Your task to perform on an android device: change the clock display to digital Image 0: 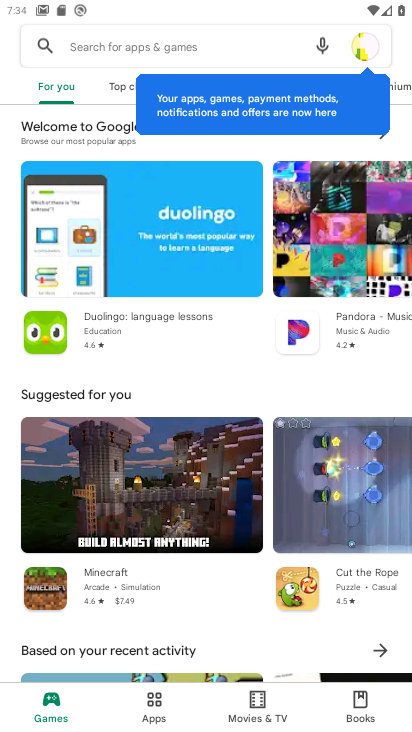
Step 0: drag from (259, 423) to (351, 116)
Your task to perform on an android device: change the clock display to digital Image 1: 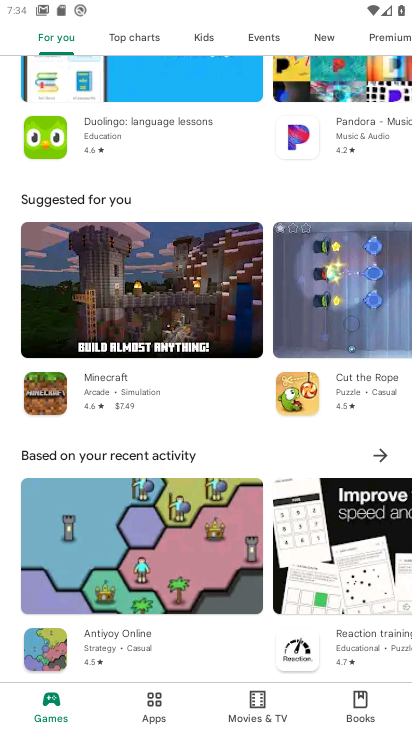
Step 1: drag from (240, 394) to (248, 276)
Your task to perform on an android device: change the clock display to digital Image 2: 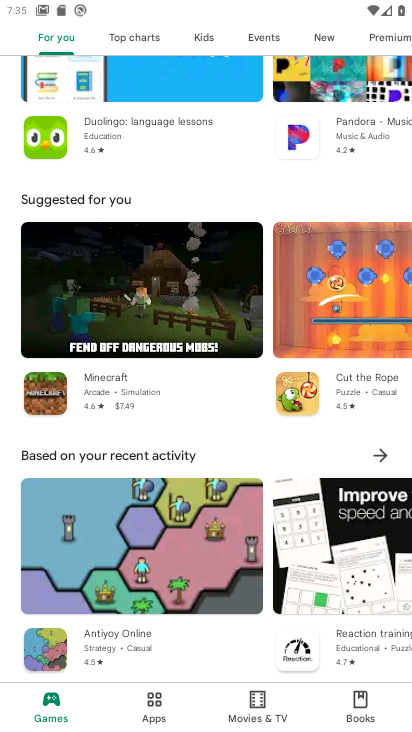
Step 2: drag from (252, 626) to (238, 265)
Your task to perform on an android device: change the clock display to digital Image 3: 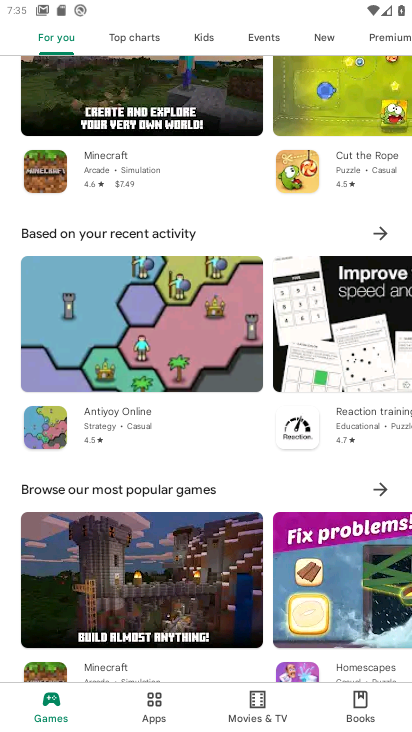
Step 3: press home button
Your task to perform on an android device: change the clock display to digital Image 4: 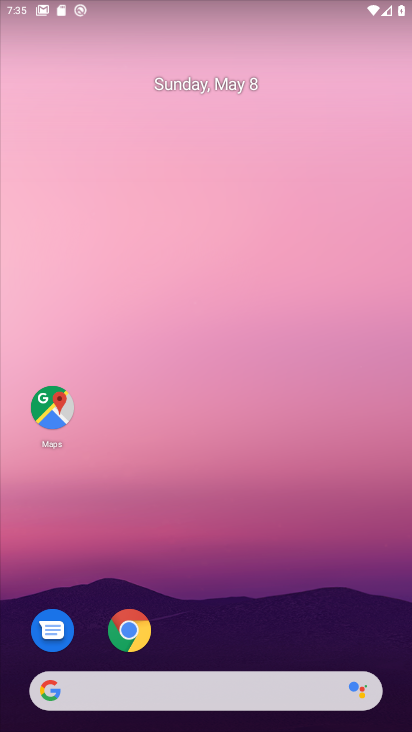
Step 4: drag from (182, 641) to (293, 25)
Your task to perform on an android device: change the clock display to digital Image 5: 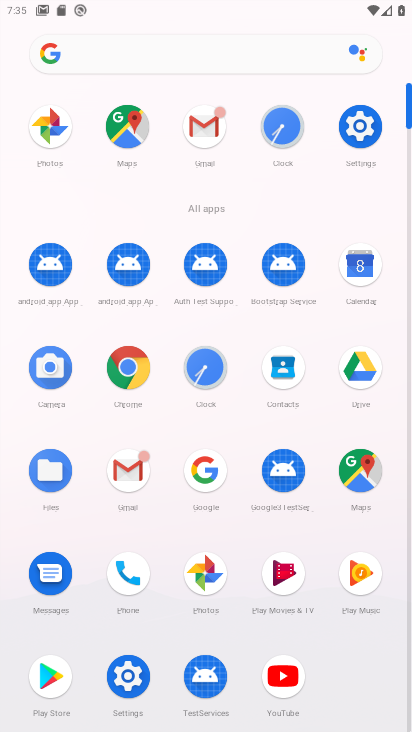
Step 5: click (193, 379)
Your task to perform on an android device: change the clock display to digital Image 6: 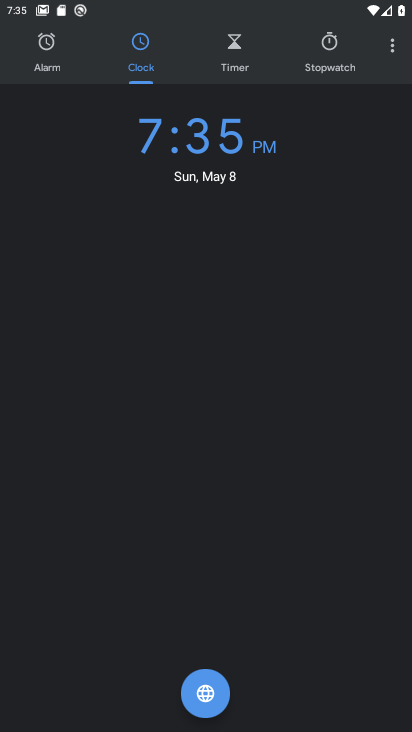
Step 6: click (383, 53)
Your task to perform on an android device: change the clock display to digital Image 7: 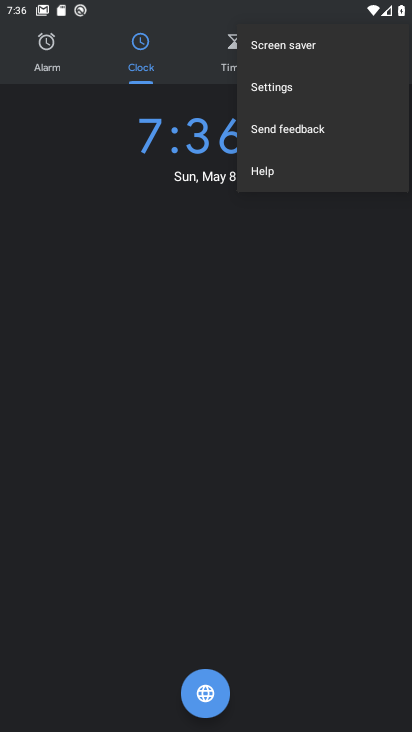
Step 7: click (303, 73)
Your task to perform on an android device: change the clock display to digital Image 8: 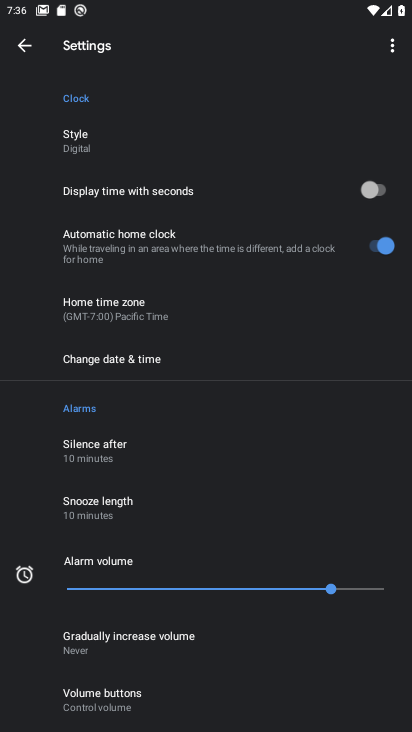
Step 8: click (125, 141)
Your task to perform on an android device: change the clock display to digital Image 9: 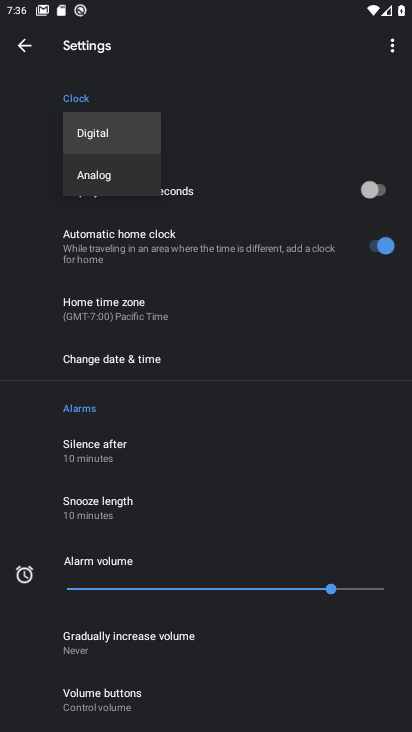
Step 9: click (305, 127)
Your task to perform on an android device: change the clock display to digital Image 10: 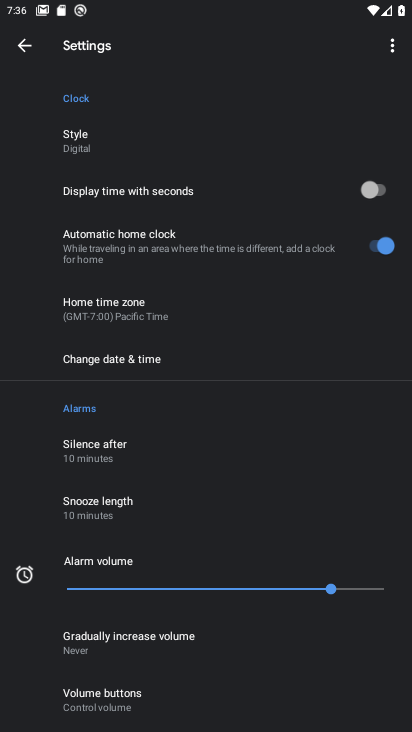
Step 10: click (87, 133)
Your task to perform on an android device: change the clock display to digital Image 11: 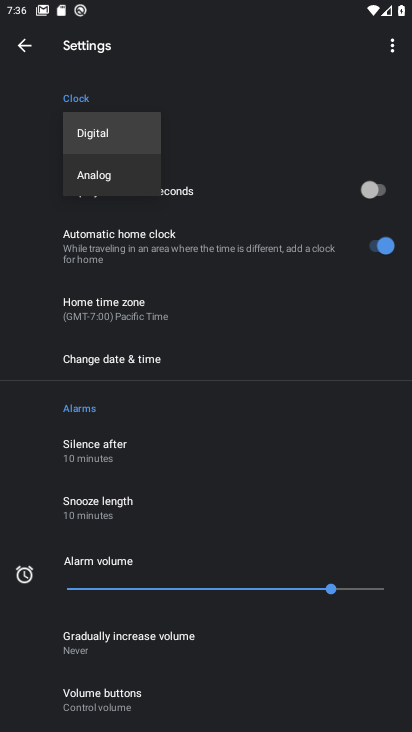
Step 11: click (130, 177)
Your task to perform on an android device: change the clock display to digital Image 12: 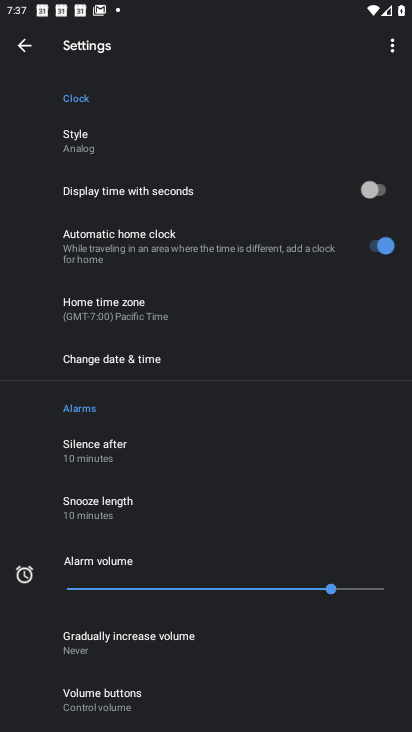
Step 12: task complete